Your task to perform on an android device: turn off location history Image 0: 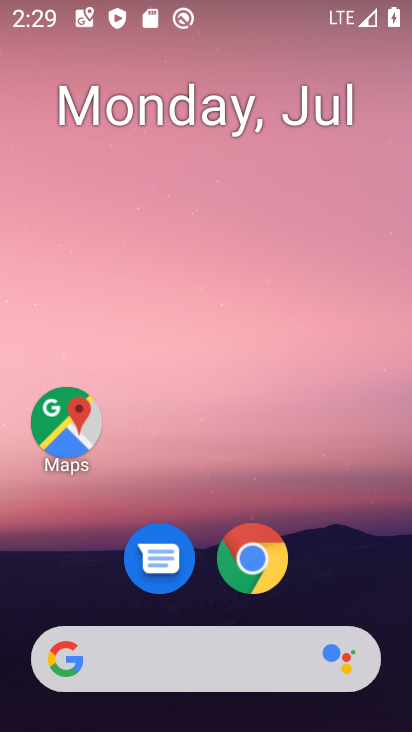
Step 0: press home button
Your task to perform on an android device: turn off location history Image 1: 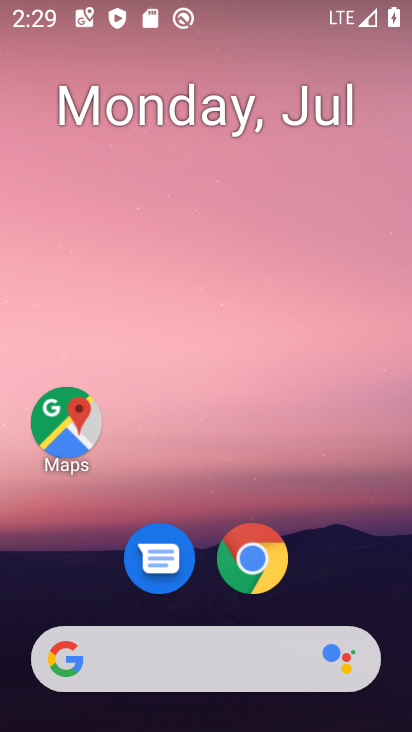
Step 1: drag from (365, 568) to (344, 20)
Your task to perform on an android device: turn off location history Image 2: 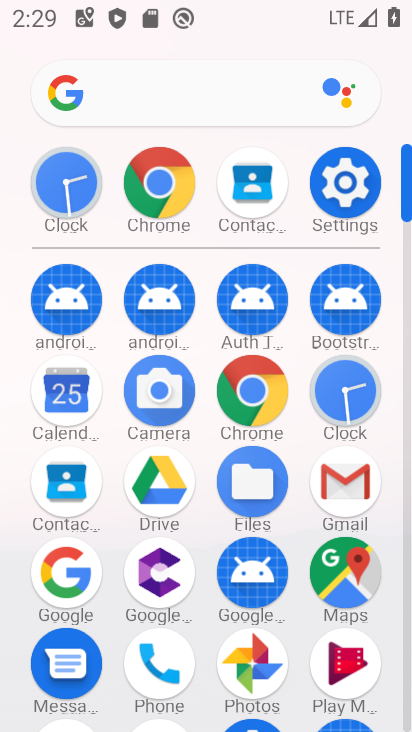
Step 2: click (350, 193)
Your task to perform on an android device: turn off location history Image 3: 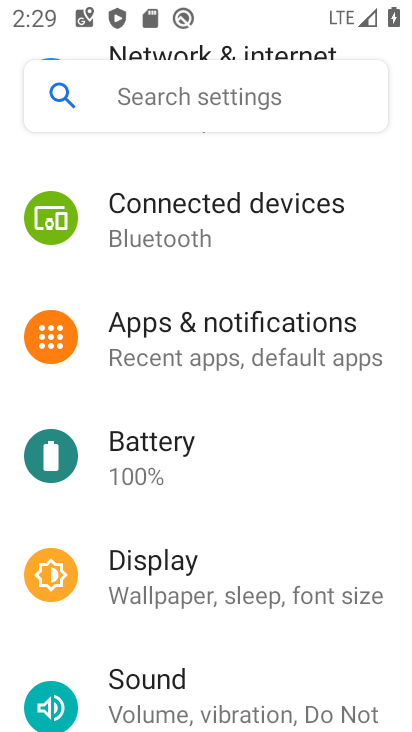
Step 3: drag from (359, 463) to (363, 380)
Your task to perform on an android device: turn off location history Image 4: 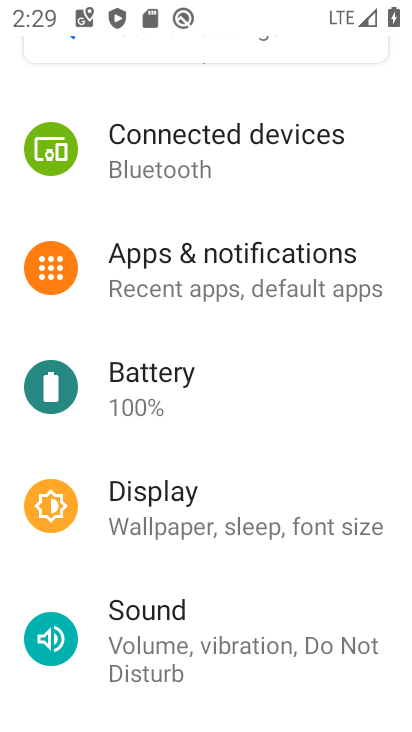
Step 4: drag from (345, 551) to (342, 442)
Your task to perform on an android device: turn off location history Image 5: 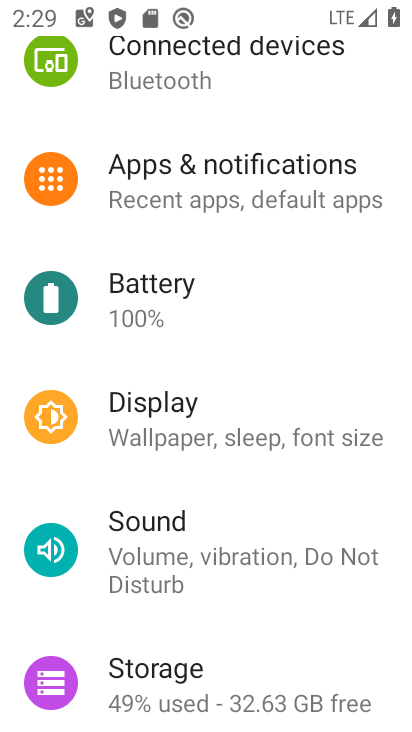
Step 5: drag from (339, 592) to (338, 465)
Your task to perform on an android device: turn off location history Image 6: 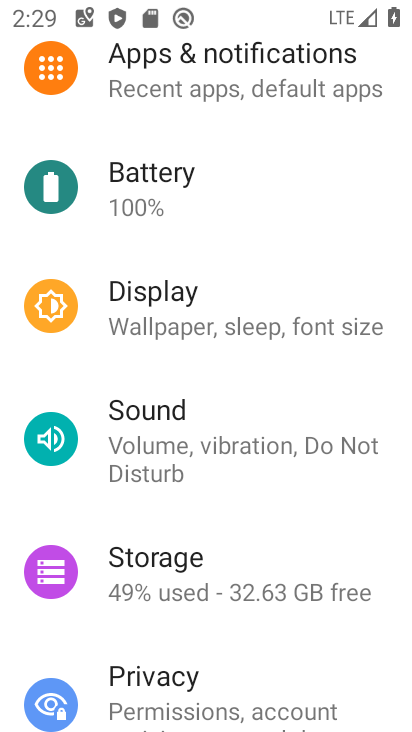
Step 6: drag from (328, 579) to (319, 471)
Your task to perform on an android device: turn off location history Image 7: 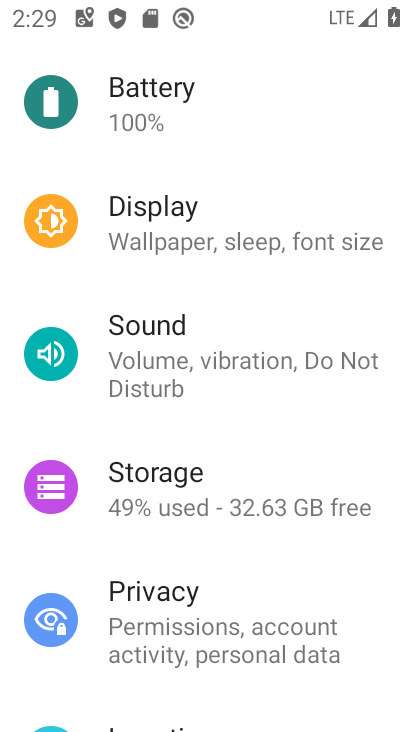
Step 7: drag from (341, 567) to (331, 449)
Your task to perform on an android device: turn off location history Image 8: 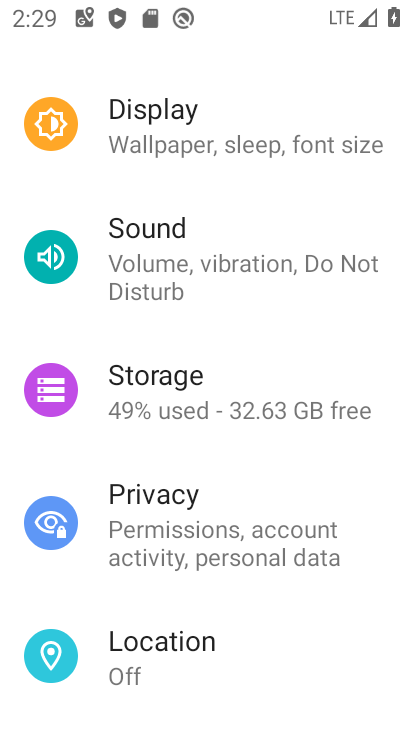
Step 8: drag from (338, 634) to (336, 505)
Your task to perform on an android device: turn off location history Image 9: 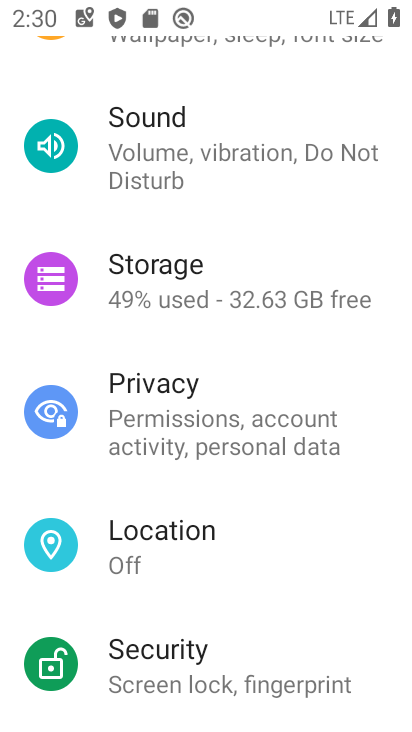
Step 9: drag from (310, 573) to (310, 433)
Your task to perform on an android device: turn off location history Image 10: 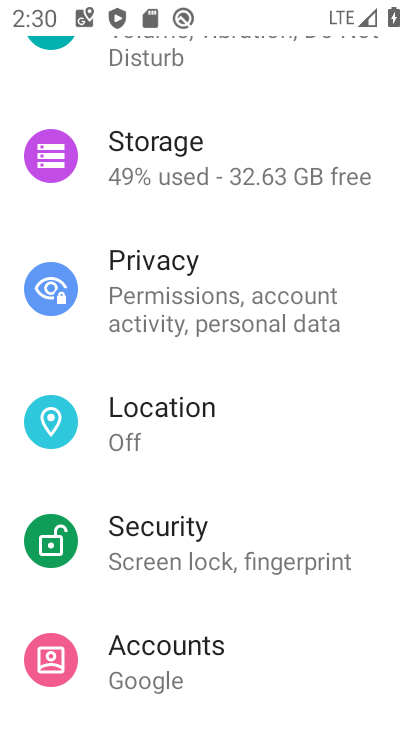
Step 10: click (310, 433)
Your task to perform on an android device: turn off location history Image 11: 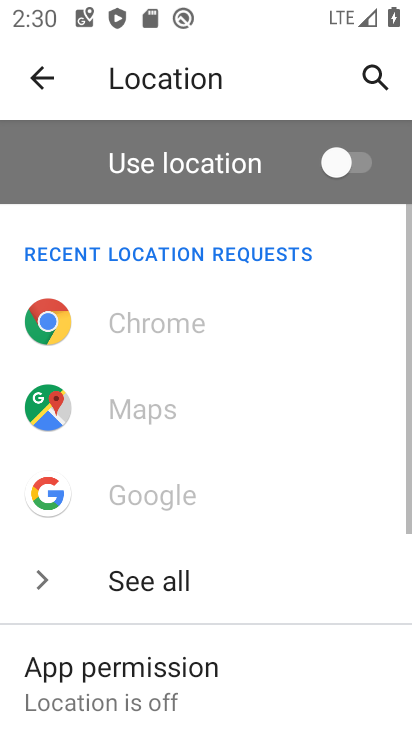
Step 11: drag from (317, 577) to (317, 437)
Your task to perform on an android device: turn off location history Image 12: 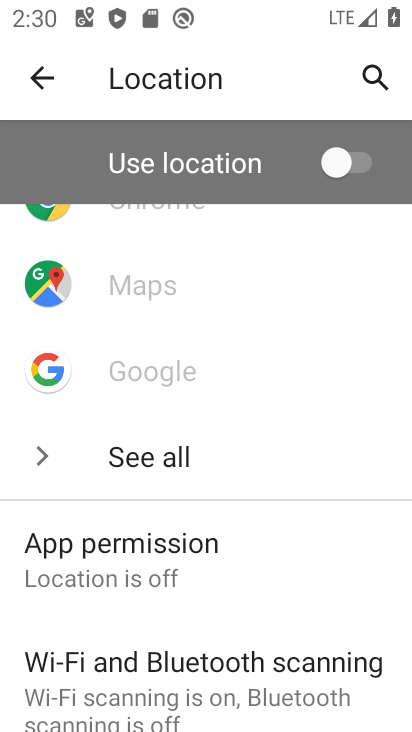
Step 12: drag from (324, 549) to (324, 448)
Your task to perform on an android device: turn off location history Image 13: 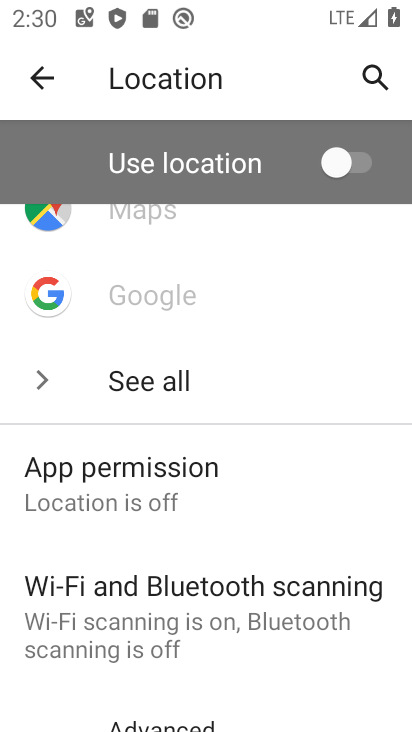
Step 13: drag from (344, 617) to (347, 444)
Your task to perform on an android device: turn off location history Image 14: 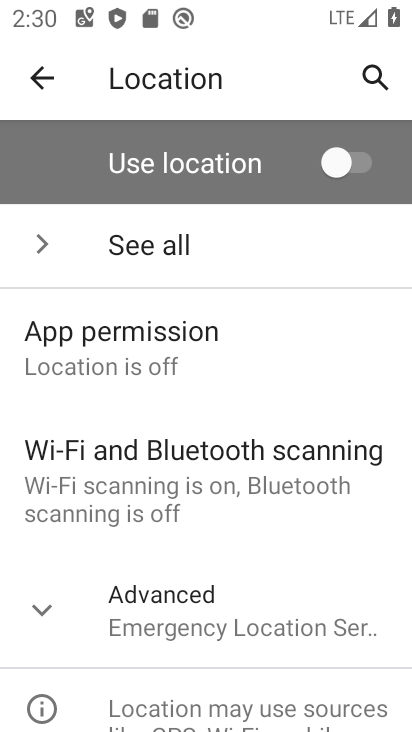
Step 14: click (334, 601)
Your task to perform on an android device: turn off location history Image 15: 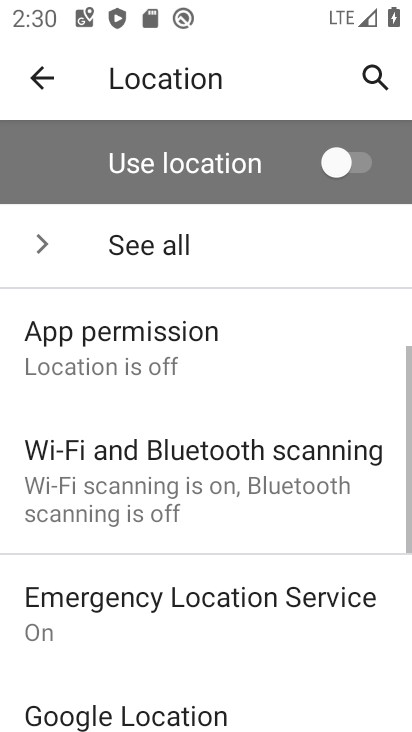
Step 15: task complete